Your task to perform on an android device: create a new album in the google photos Image 0: 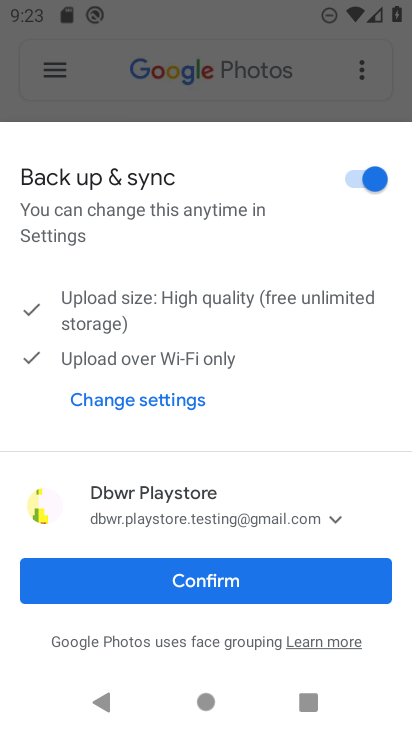
Step 0: press home button
Your task to perform on an android device: create a new album in the google photos Image 1: 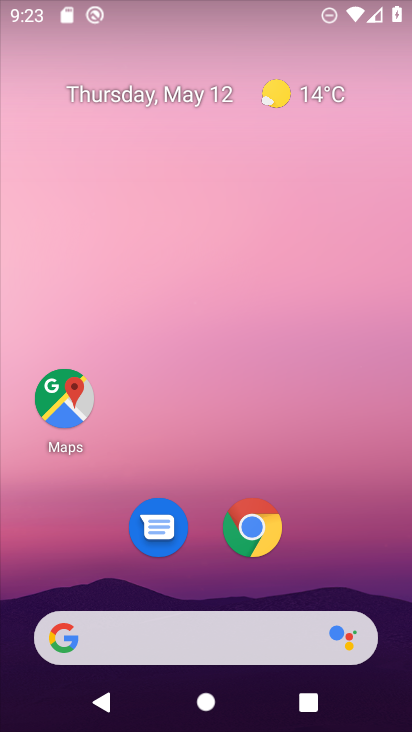
Step 1: drag from (325, 555) to (331, 114)
Your task to perform on an android device: create a new album in the google photos Image 2: 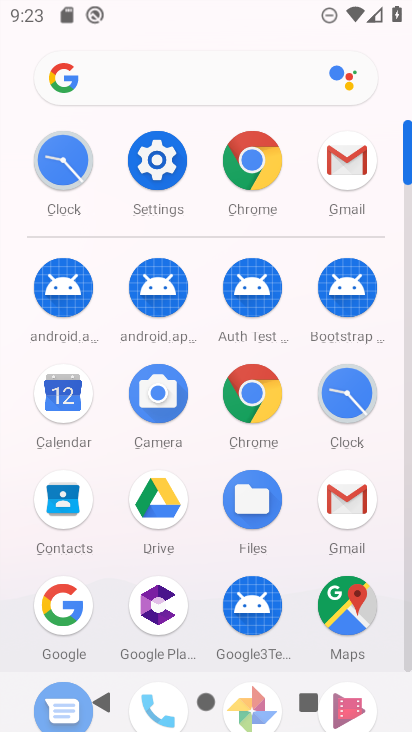
Step 2: drag from (259, 636) to (277, 386)
Your task to perform on an android device: create a new album in the google photos Image 3: 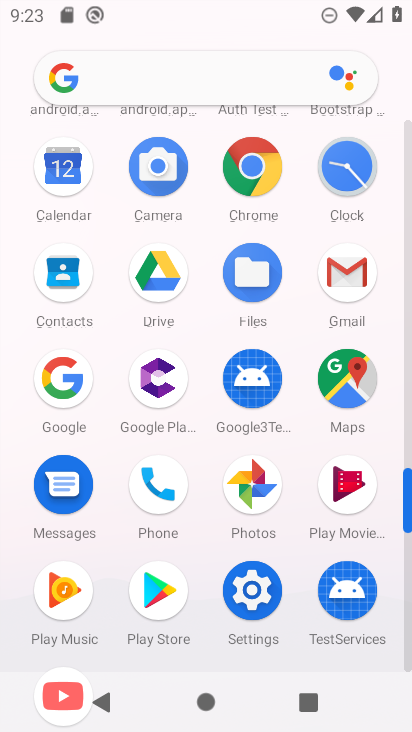
Step 3: click (261, 483)
Your task to perform on an android device: create a new album in the google photos Image 4: 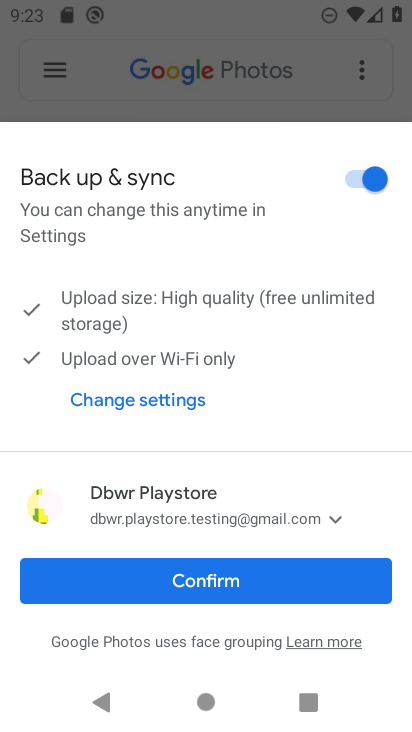
Step 4: click (255, 589)
Your task to perform on an android device: create a new album in the google photos Image 5: 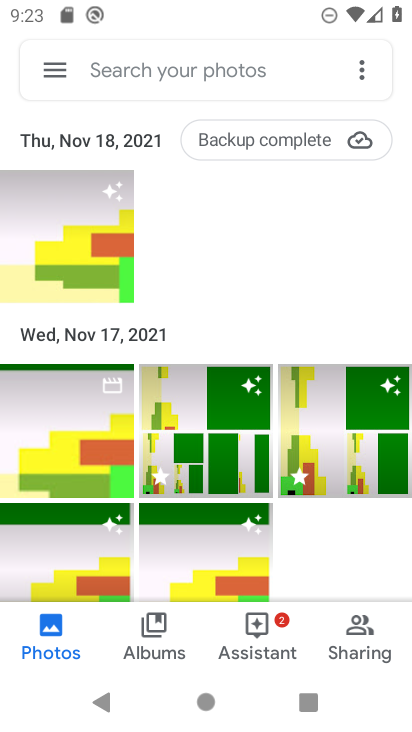
Step 5: click (177, 640)
Your task to perform on an android device: create a new album in the google photos Image 6: 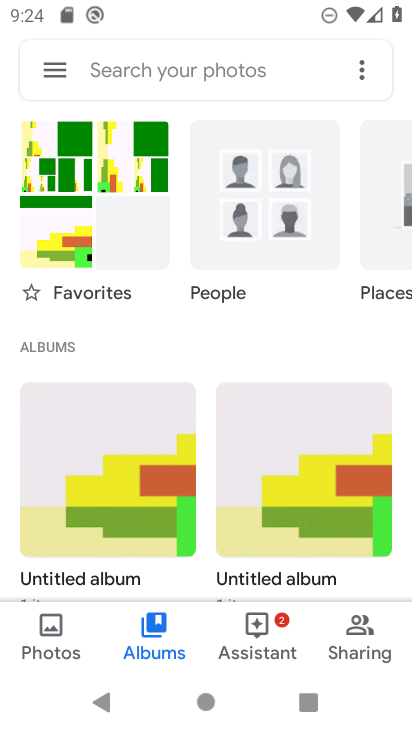
Step 6: click (129, 544)
Your task to perform on an android device: create a new album in the google photos Image 7: 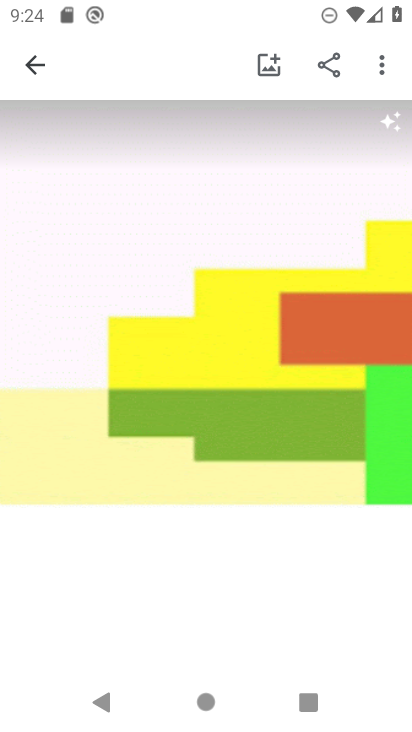
Step 7: click (267, 67)
Your task to perform on an android device: create a new album in the google photos Image 8: 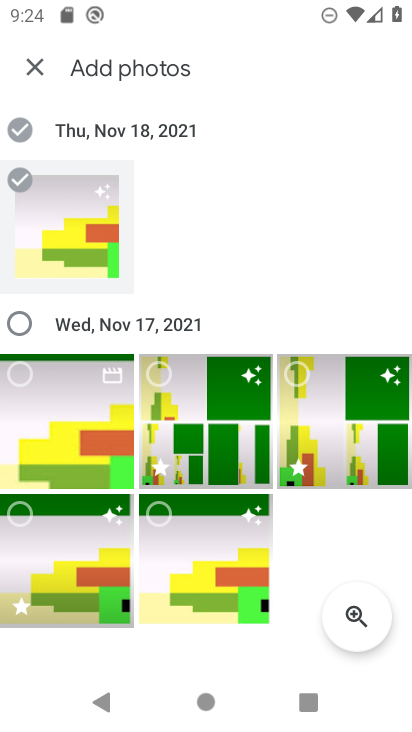
Step 8: click (26, 317)
Your task to perform on an android device: create a new album in the google photos Image 9: 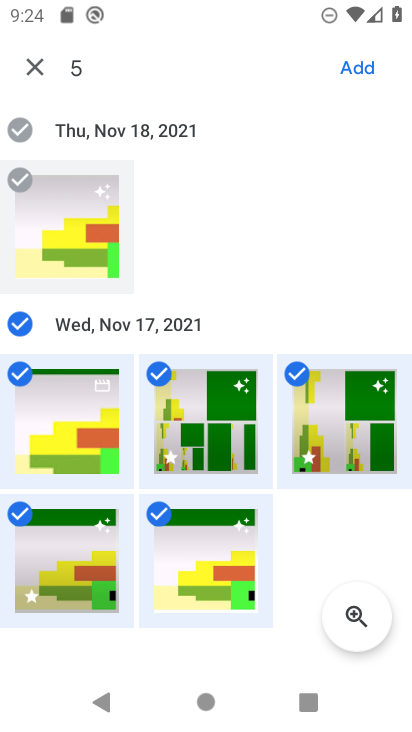
Step 9: click (348, 81)
Your task to perform on an android device: create a new album in the google photos Image 10: 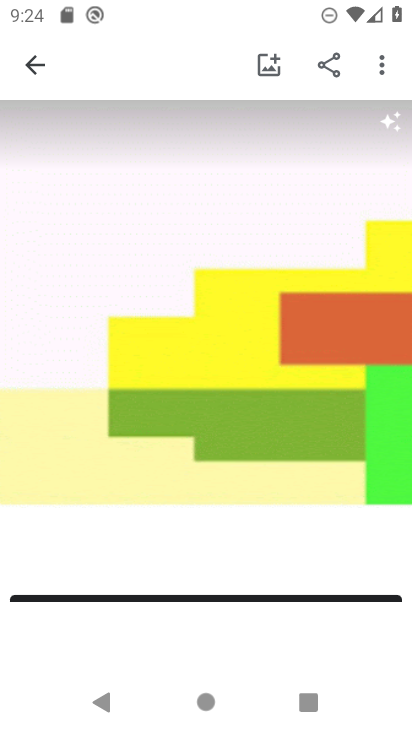
Step 10: task complete